Your task to perform on an android device: Go to wifi settings Image 0: 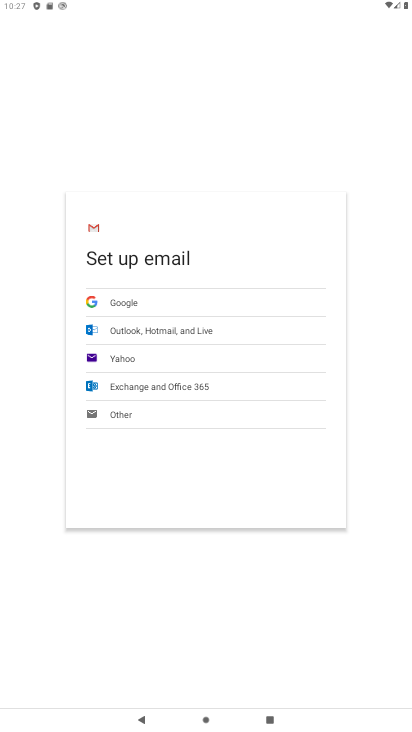
Step 0: press home button
Your task to perform on an android device: Go to wifi settings Image 1: 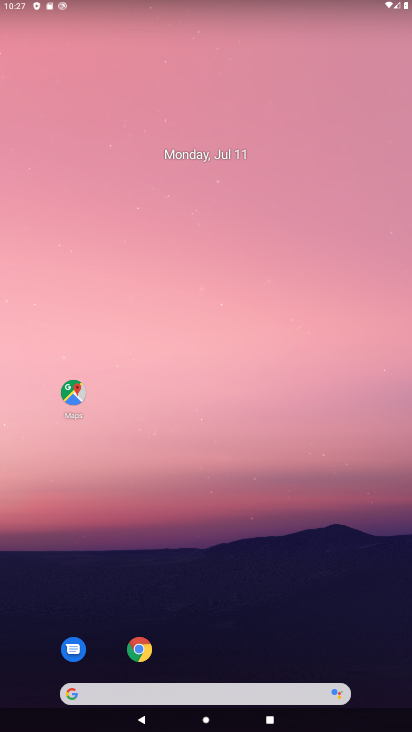
Step 1: drag from (188, 697) to (195, 241)
Your task to perform on an android device: Go to wifi settings Image 2: 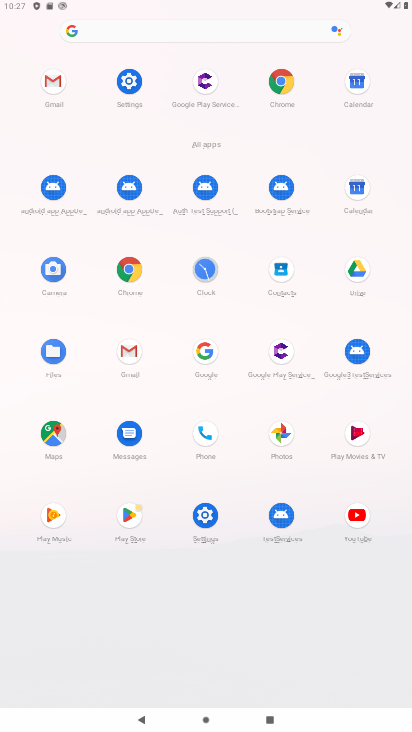
Step 2: click (129, 79)
Your task to perform on an android device: Go to wifi settings Image 3: 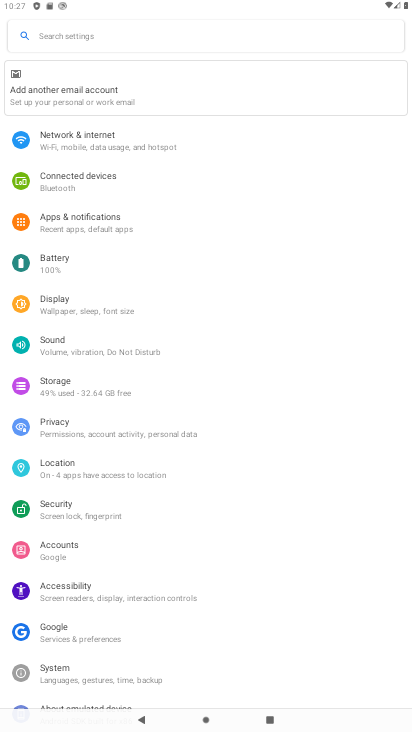
Step 3: click (119, 147)
Your task to perform on an android device: Go to wifi settings Image 4: 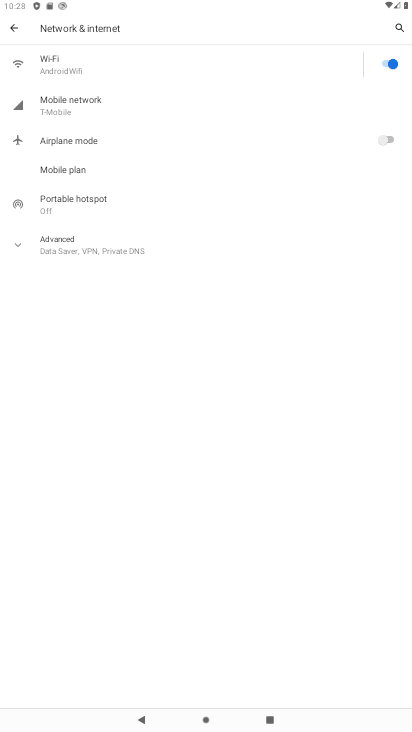
Step 4: click (68, 79)
Your task to perform on an android device: Go to wifi settings Image 5: 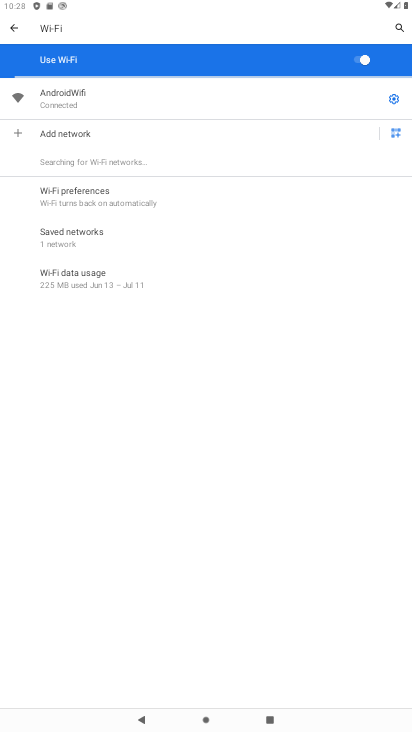
Step 5: click (394, 101)
Your task to perform on an android device: Go to wifi settings Image 6: 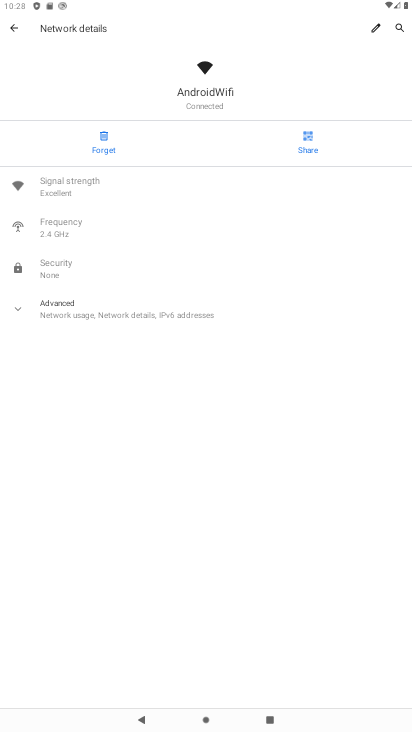
Step 6: task complete